Your task to perform on an android device: Open Android settings Image 0: 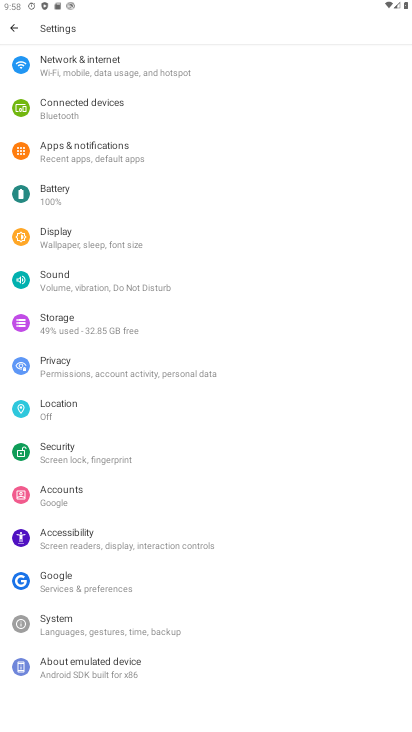
Step 0: drag from (167, 565) to (193, 178)
Your task to perform on an android device: Open Android settings Image 1: 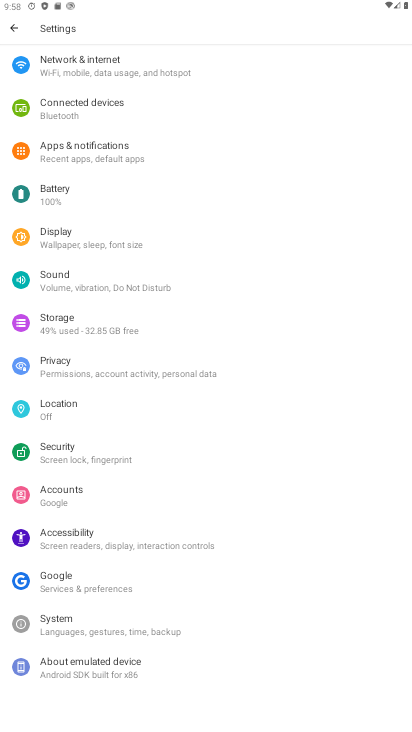
Step 1: click (103, 678)
Your task to perform on an android device: Open Android settings Image 2: 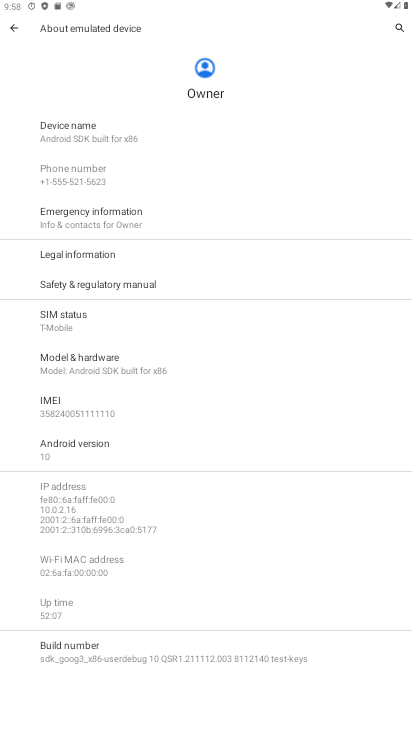
Step 2: click (91, 442)
Your task to perform on an android device: Open Android settings Image 3: 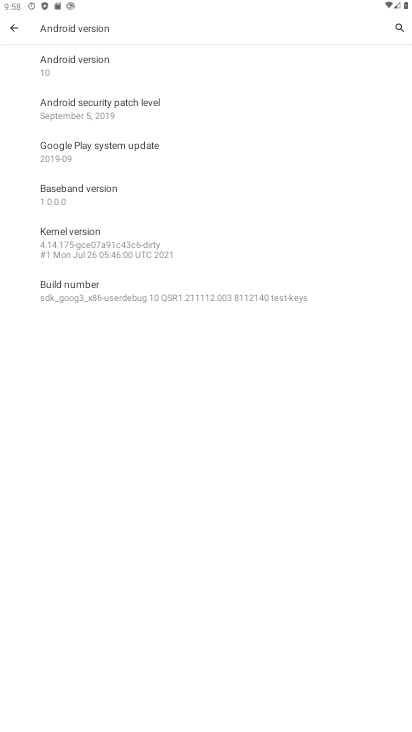
Step 3: task complete